Your task to perform on an android device: choose inbox layout in the gmail app Image 0: 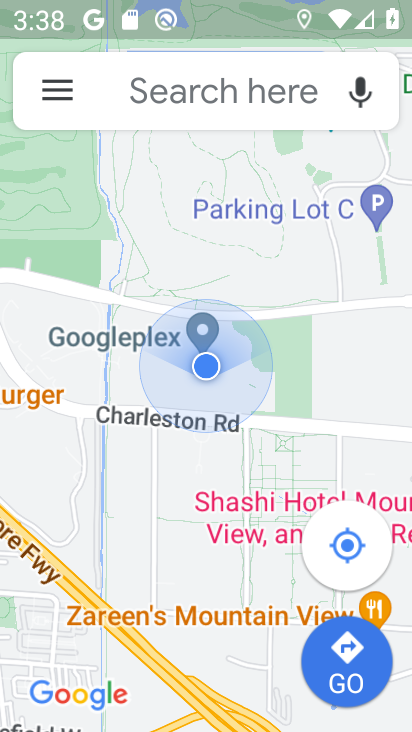
Step 0: press home button
Your task to perform on an android device: choose inbox layout in the gmail app Image 1: 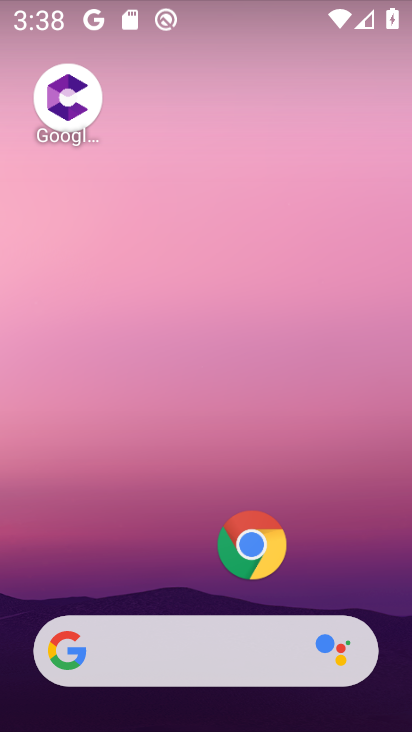
Step 1: drag from (363, 555) to (267, 62)
Your task to perform on an android device: choose inbox layout in the gmail app Image 2: 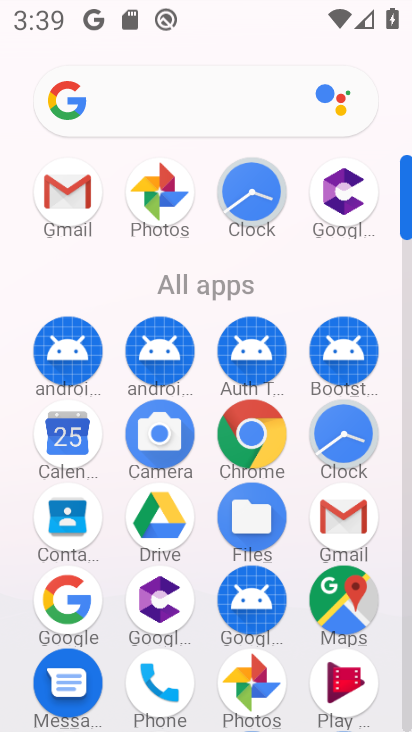
Step 2: click (65, 193)
Your task to perform on an android device: choose inbox layout in the gmail app Image 3: 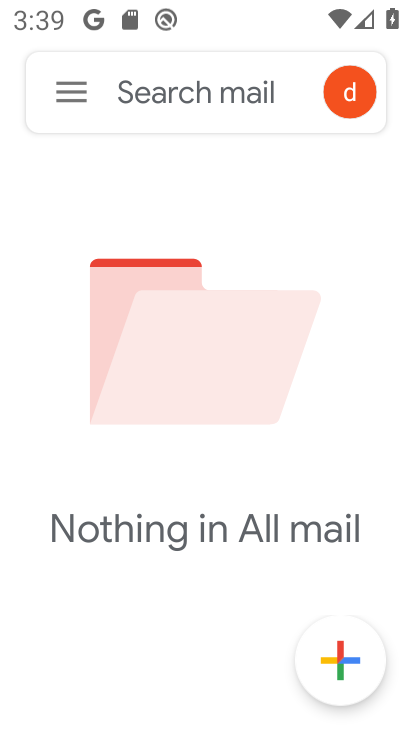
Step 3: click (87, 90)
Your task to perform on an android device: choose inbox layout in the gmail app Image 4: 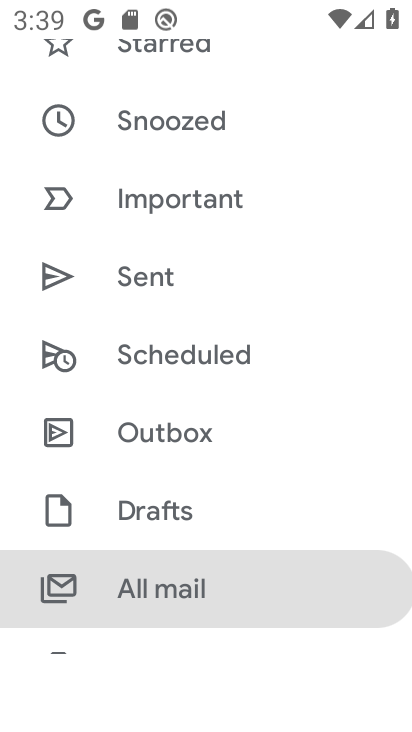
Step 4: drag from (210, 131) to (227, 470)
Your task to perform on an android device: choose inbox layout in the gmail app Image 5: 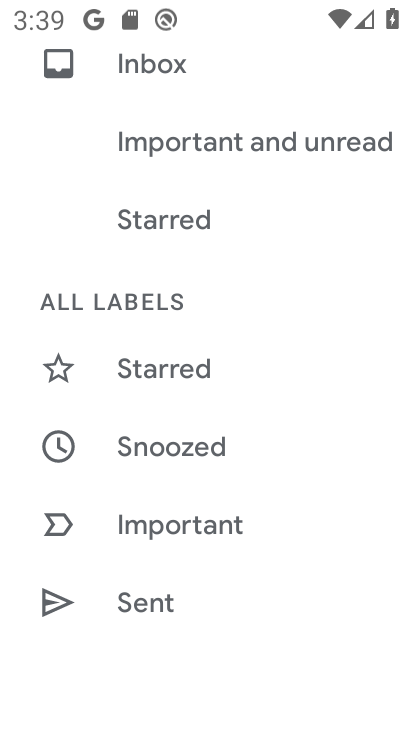
Step 5: drag from (231, 533) to (229, 101)
Your task to perform on an android device: choose inbox layout in the gmail app Image 6: 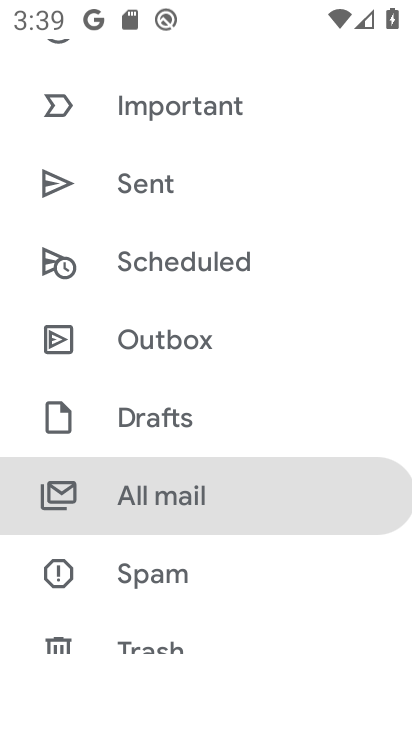
Step 6: drag from (225, 590) to (197, 154)
Your task to perform on an android device: choose inbox layout in the gmail app Image 7: 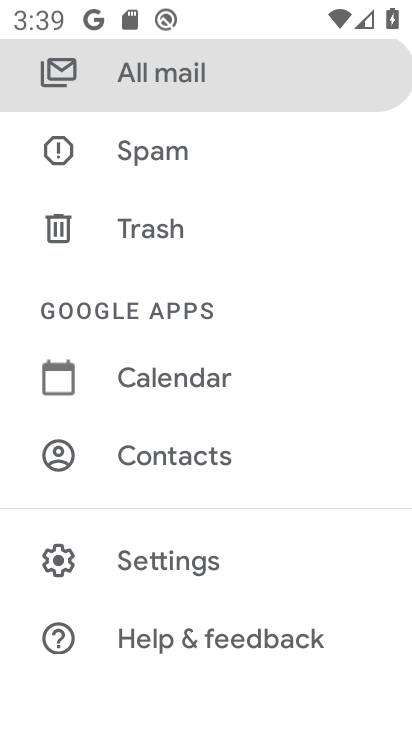
Step 7: click (189, 569)
Your task to perform on an android device: choose inbox layout in the gmail app Image 8: 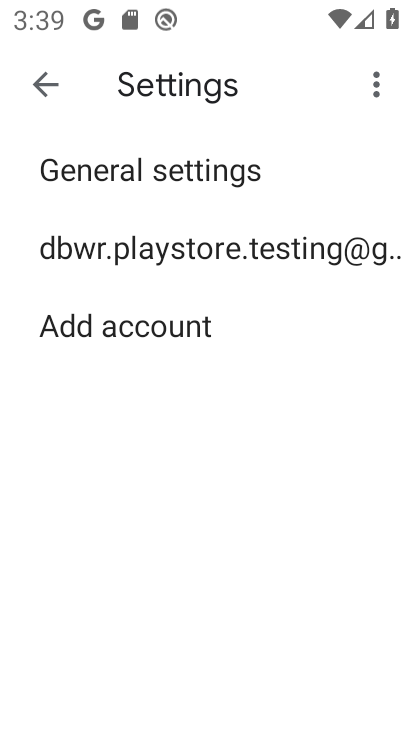
Step 8: click (213, 235)
Your task to perform on an android device: choose inbox layout in the gmail app Image 9: 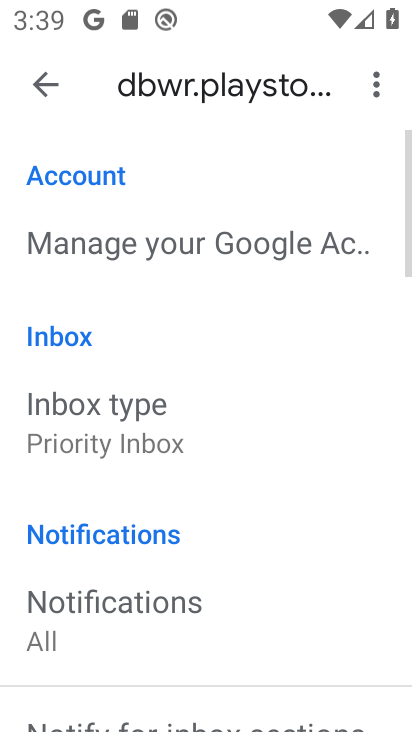
Step 9: click (128, 422)
Your task to perform on an android device: choose inbox layout in the gmail app Image 10: 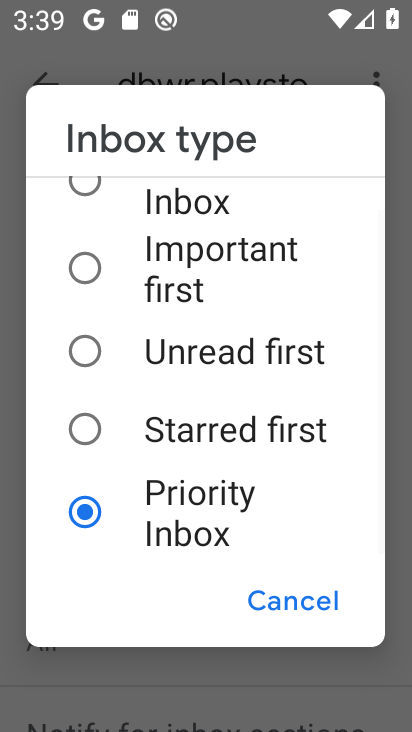
Step 10: drag from (178, 195) to (209, 381)
Your task to perform on an android device: choose inbox layout in the gmail app Image 11: 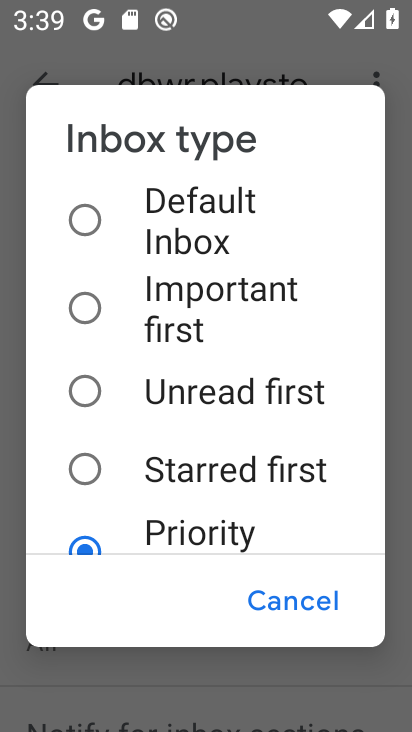
Step 11: click (84, 211)
Your task to perform on an android device: choose inbox layout in the gmail app Image 12: 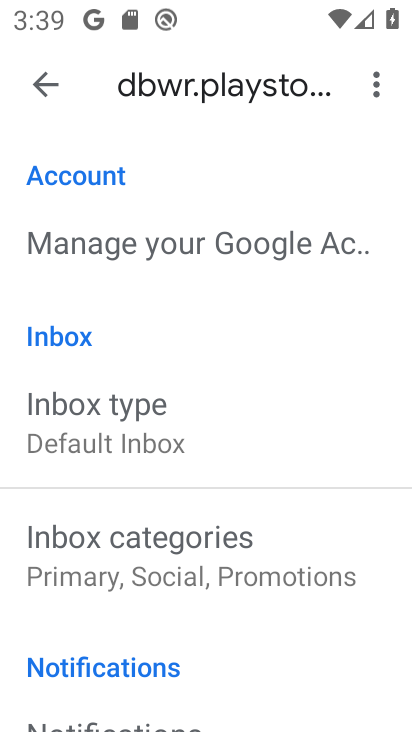
Step 12: task complete